Your task to perform on an android device: Search for vegetarian restaurants on Maps Image 0: 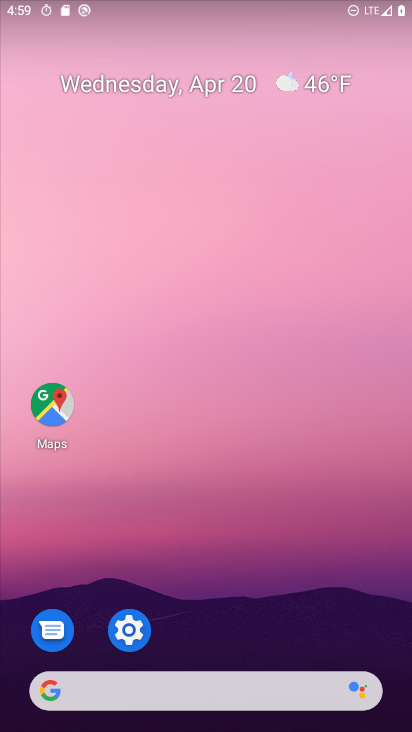
Step 0: drag from (157, 620) to (235, 1)
Your task to perform on an android device: Search for vegetarian restaurants on Maps Image 1: 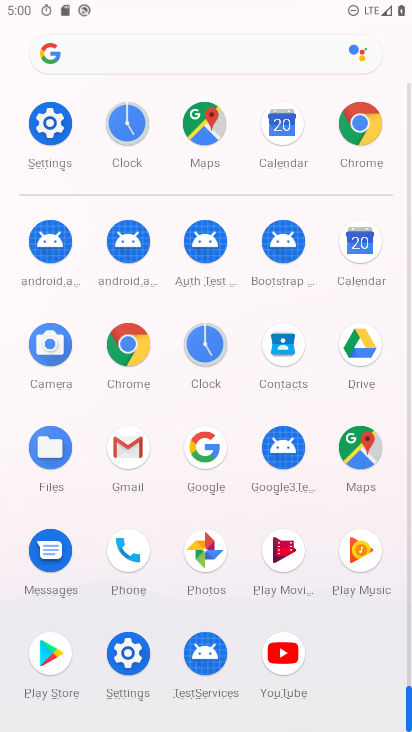
Step 1: click (345, 453)
Your task to perform on an android device: Search for vegetarian restaurants on Maps Image 2: 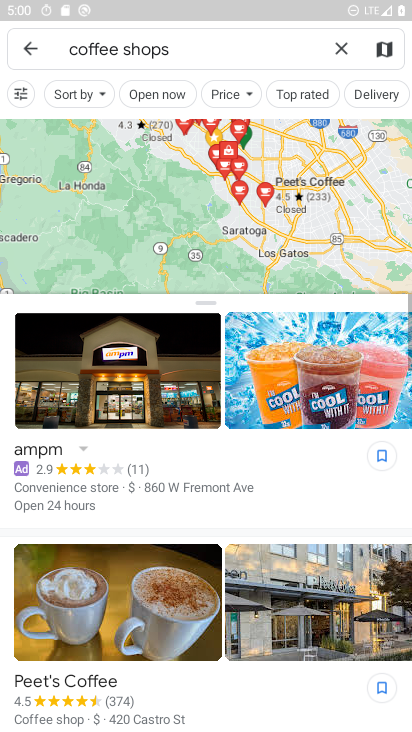
Step 2: click (336, 53)
Your task to perform on an android device: Search for vegetarian restaurants on Maps Image 3: 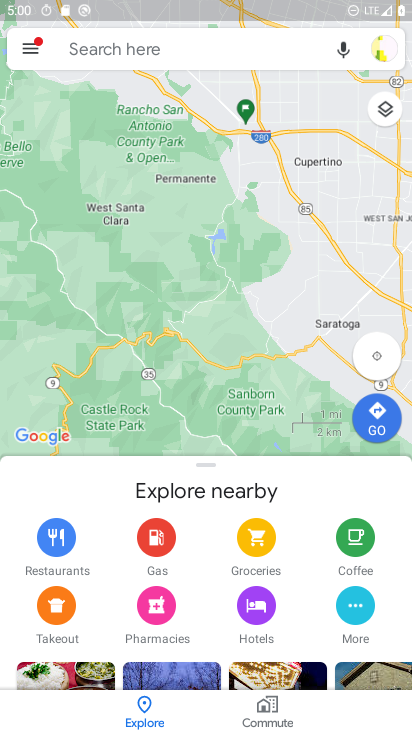
Step 3: click (273, 50)
Your task to perform on an android device: Search for vegetarian restaurants on Maps Image 4: 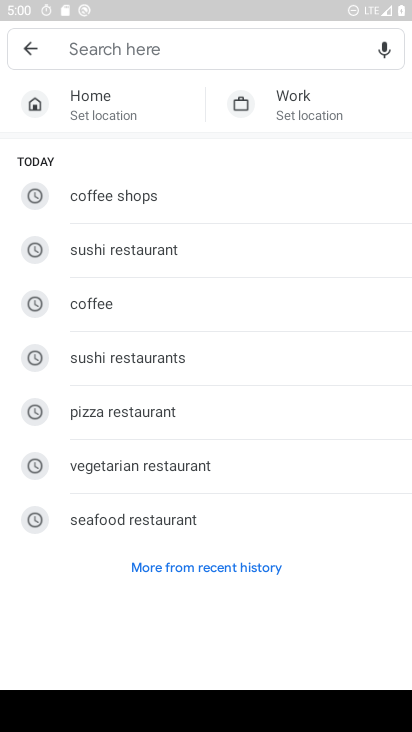
Step 4: type "vegetarian restaurant"
Your task to perform on an android device: Search for vegetarian restaurants on Maps Image 5: 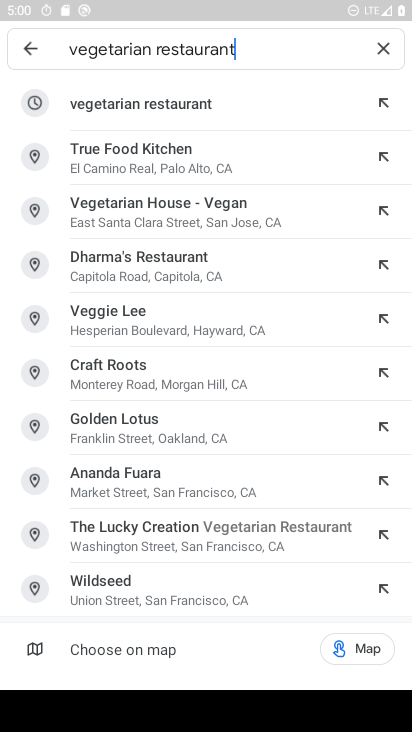
Step 5: click (216, 117)
Your task to perform on an android device: Search for vegetarian restaurants on Maps Image 6: 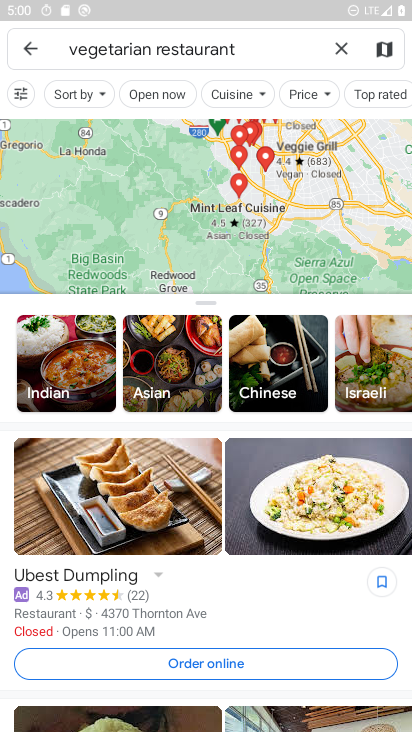
Step 6: task complete